Your task to perform on an android device: Open settings Image 0: 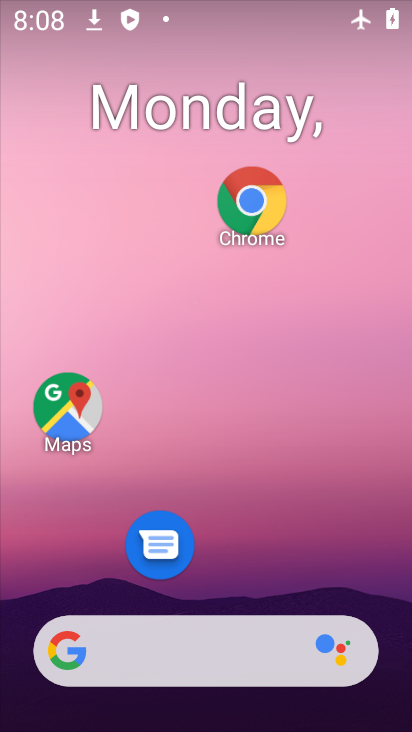
Step 0: click (208, 128)
Your task to perform on an android device: Open settings Image 1: 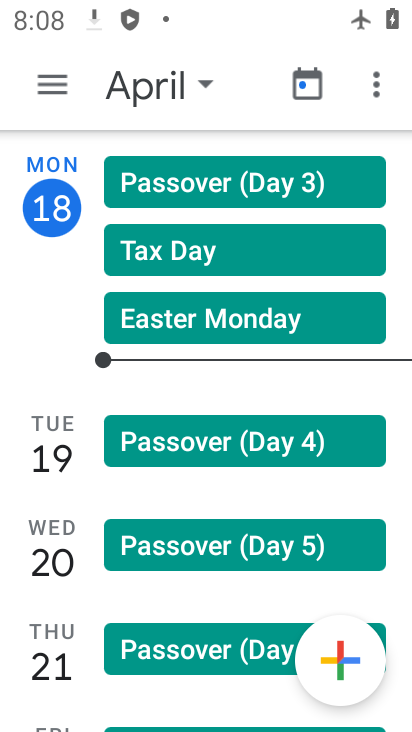
Step 1: press home button
Your task to perform on an android device: Open settings Image 2: 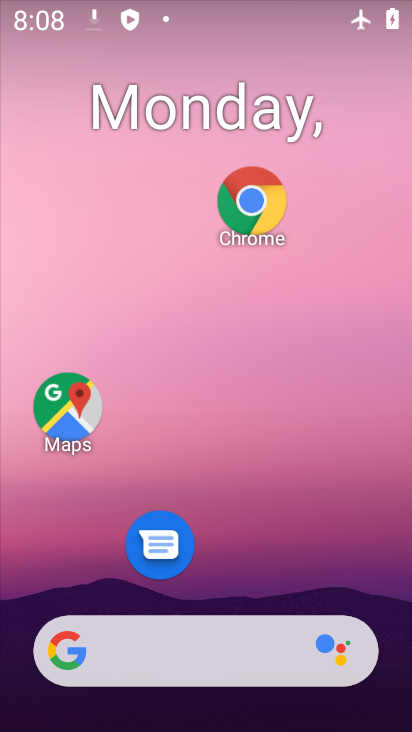
Step 2: drag from (248, 557) to (250, 101)
Your task to perform on an android device: Open settings Image 3: 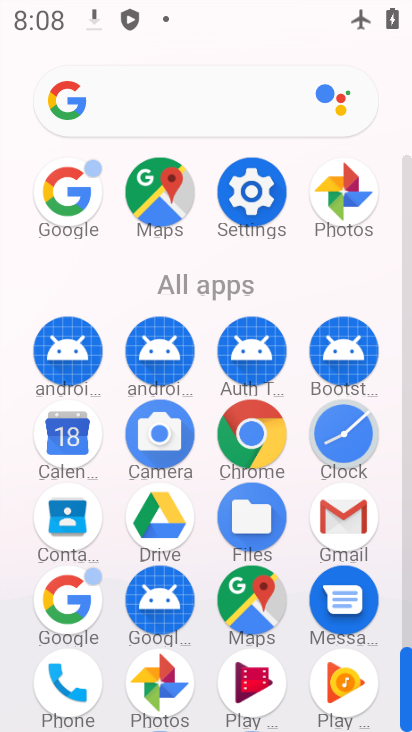
Step 3: click (250, 171)
Your task to perform on an android device: Open settings Image 4: 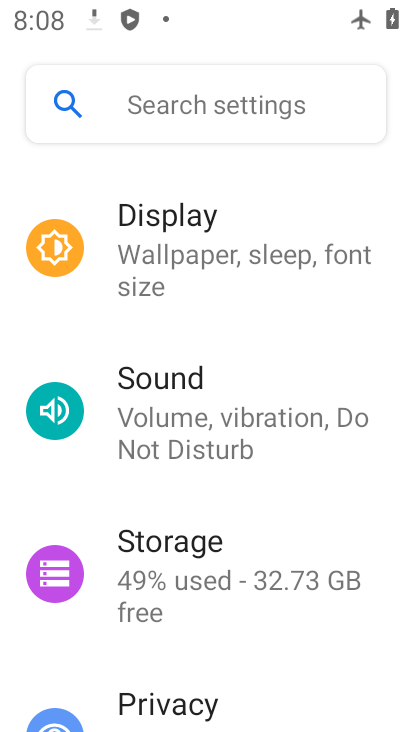
Step 4: task complete